Your task to perform on an android device: Search for seafood restaurants on Google Maps Image 0: 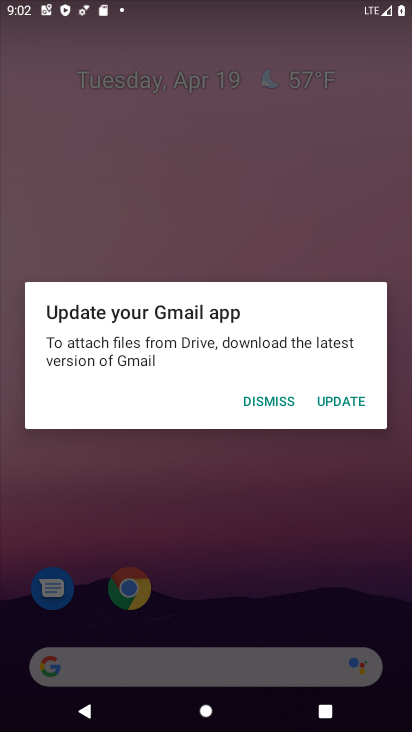
Step 0: press home button
Your task to perform on an android device: Search for seafood restaurants on Google Maps Image 1: 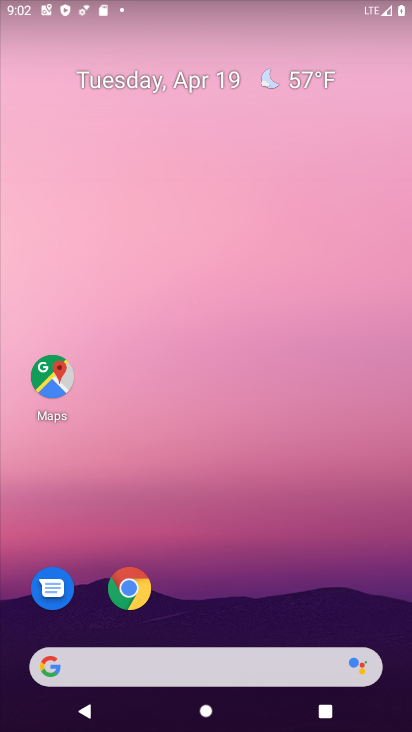
Step 1: click (51, 372)
Your task to perform on an android device: Search for seafood restaurants on Google Maps Image 2: 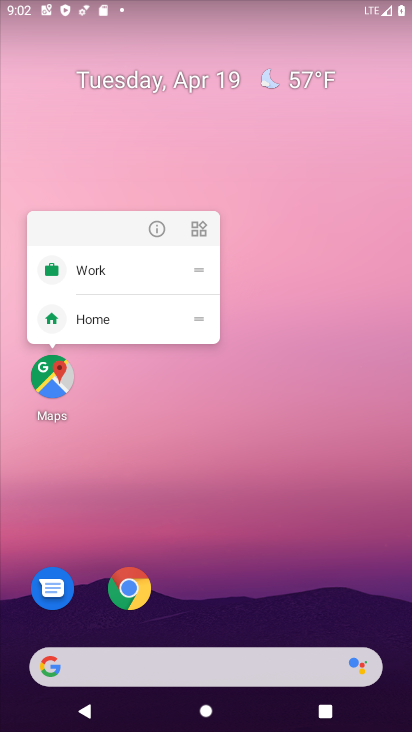
Step 2: click (51, 372)
Your task to perform on an android device: Search for seafood restaurants on Google Maps Image 3: 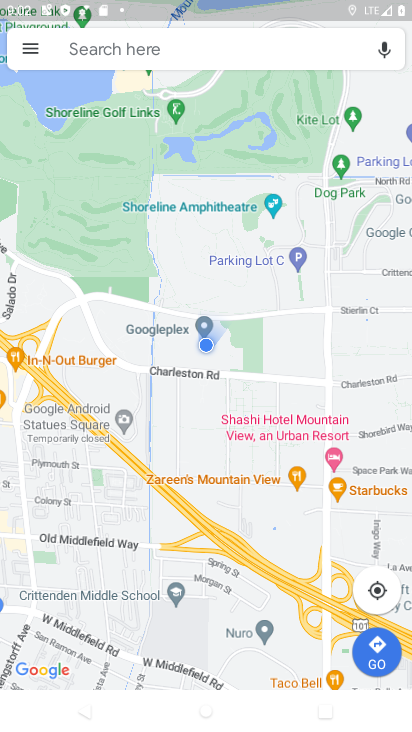
Step 3: click (194, 43)
Your task to perform on an android device: Search for seafood restaurants on Google Maps Image 4: 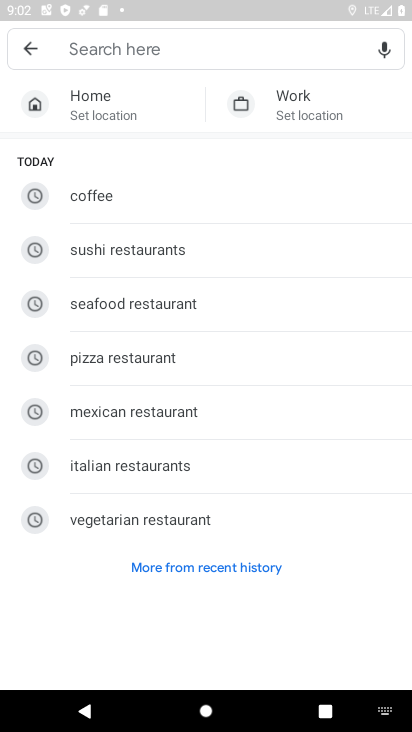
Step 4: type "seafood restaurants"
Your task to perform on an android device: Search for seafood restaurants on Google Maps Image 5: 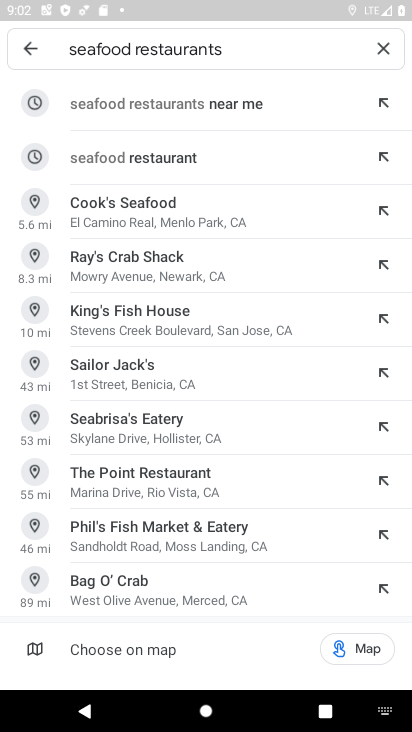
Step 5: click (87, 167)
Your task to perform on an android device: Search for seafood restaurants on Google Maps Image 6: 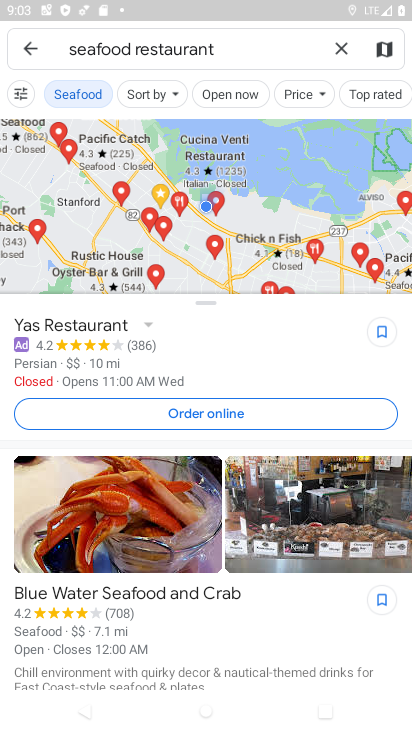
Step 6: task complete